Your task to perform on an android device: choose inbox layout in the gmail app Image 0: 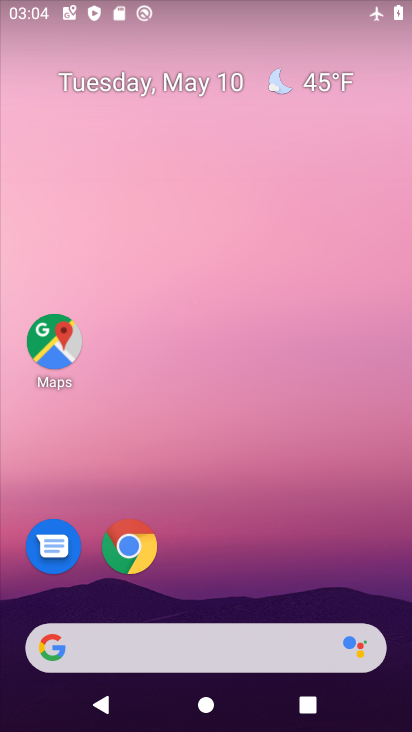
Step 0: drag from (215, 523) to (173, 23)
Your task to perform on an android device: choose inbox layout in the gmail app Image 1: 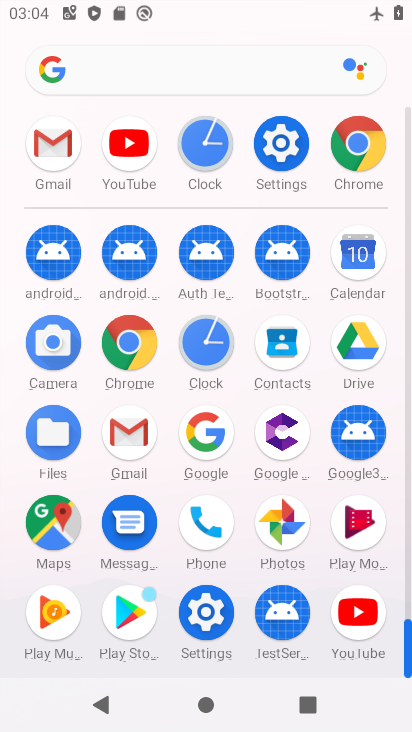
Step 1: drag from (9, 557) to (22, 215)
Your task to perform on an android device: choose inbox layout in the gmail app Image 2: 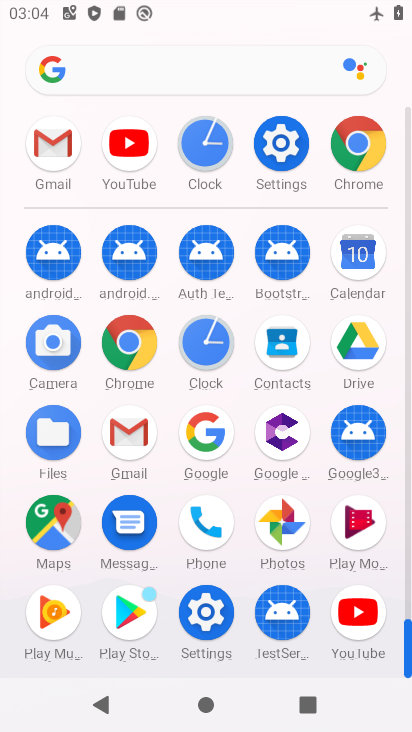
Step 2: click (128, 428)
Your task to perform on an android device: choose inbox layout in the gmail app Image 3: 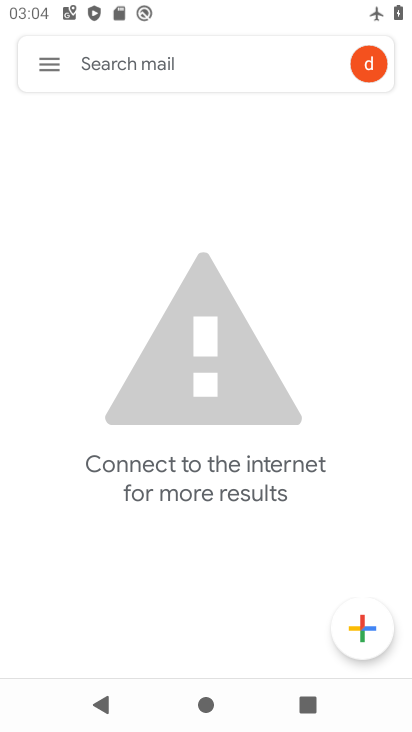
Step 3: click (50, 60)
Your task to perform on an android device: choose inbox layout in the gmail app Image 4: 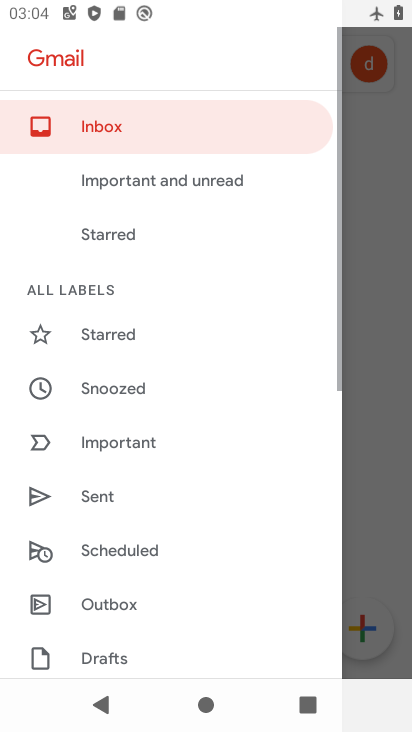
Step 4: drag from (135, 293) to (164, 530)
Your task to perform on an android device: choose inbox layout in the gmail app Image 5: 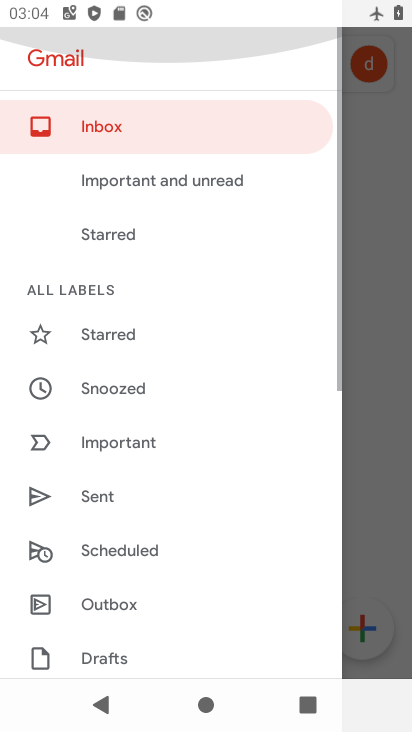
Step 5: drag from (164, 542) to (216, 132)
Your task to perform on an android device: choose inbox layout in the gmail app Image 6: 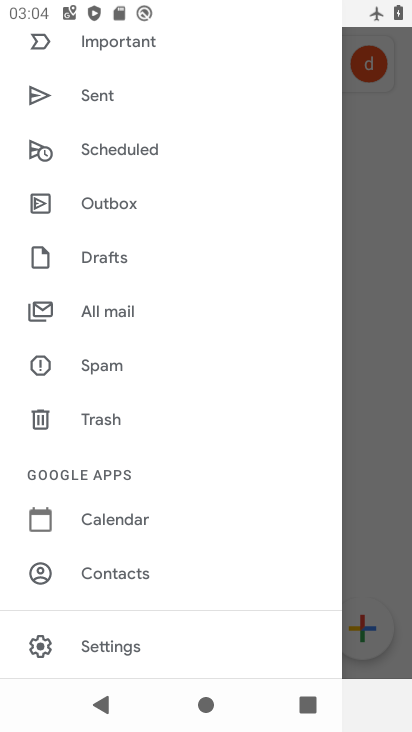
Step 6: drag from (223, 508) to (251, 123)
Your task to perform on an android device: choose inbox layout in the gmail app Image 7: 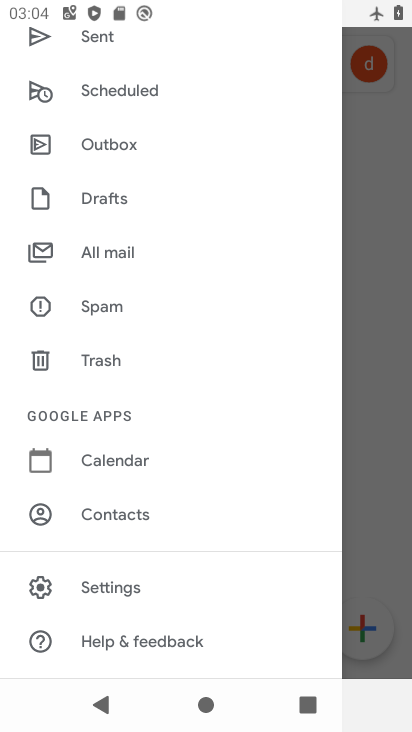
Step 7: click (105, 579)
Your task to perform on an android device: choose inbox layout in the gmail app Image 8: 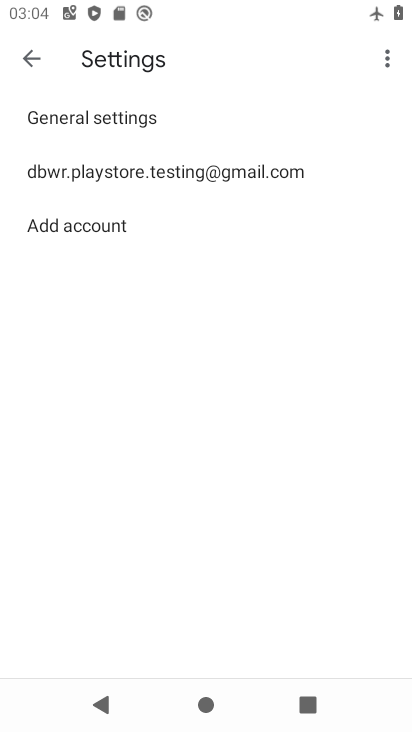
Step 8: click (128, 166)
Your task to perform on an android device: choose inbox layout in the gmail app Image 9: 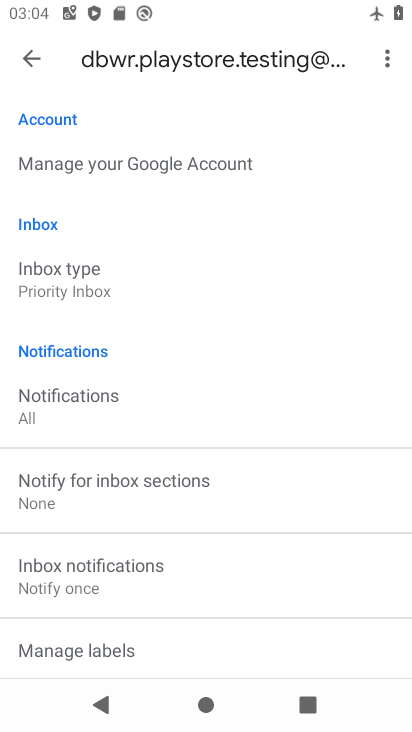
Step 9: click (116, 274)
Your task to perform on an android device: choose inbox layout in the gmail app Image 10: 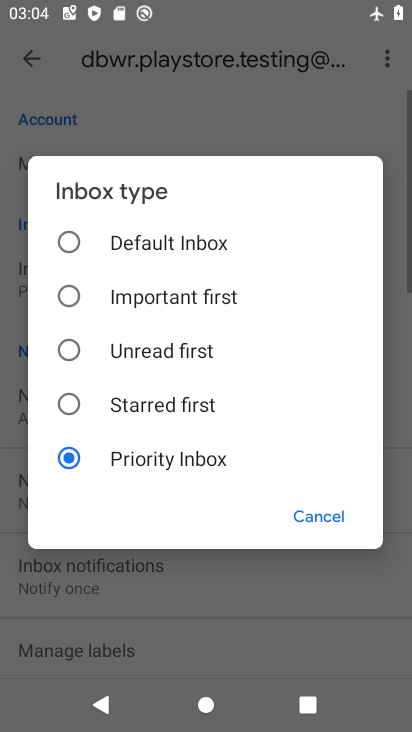
Step 10: click (129, 255)
Your task to perform on an android device: choose inbox layout in the gmail app Image 11: 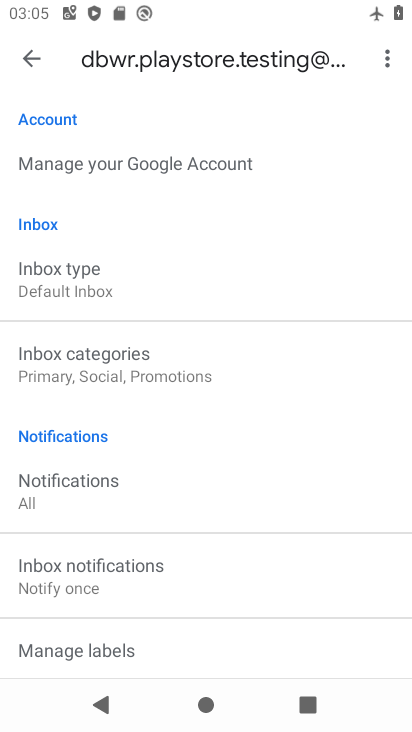
Step 11: task complete